Your task to perform on an android device: Open my contact list Image 0: 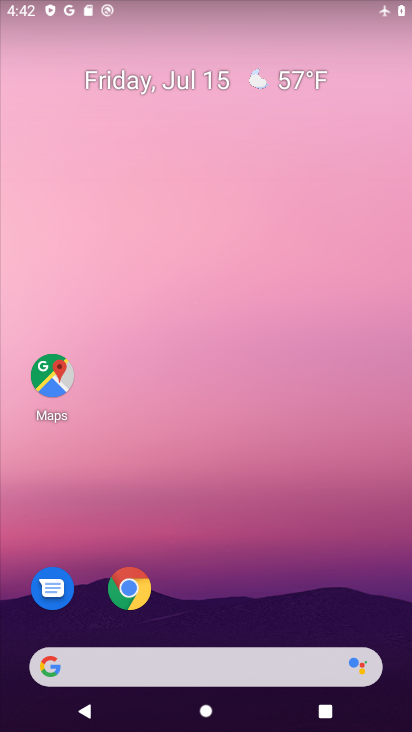
Step 0: drag from (267, 585) to (298, 489)
Your task to perform on an android device: Open my contact list Image 1: 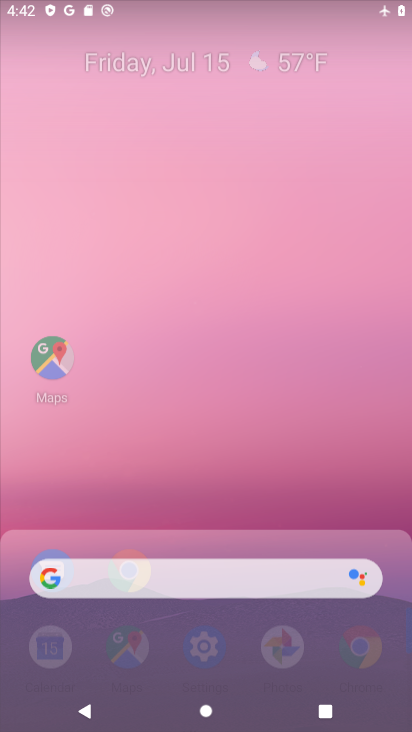
Step 1: click (322, 306)
Your task to perform on an android device: Open my contact list Image 2: 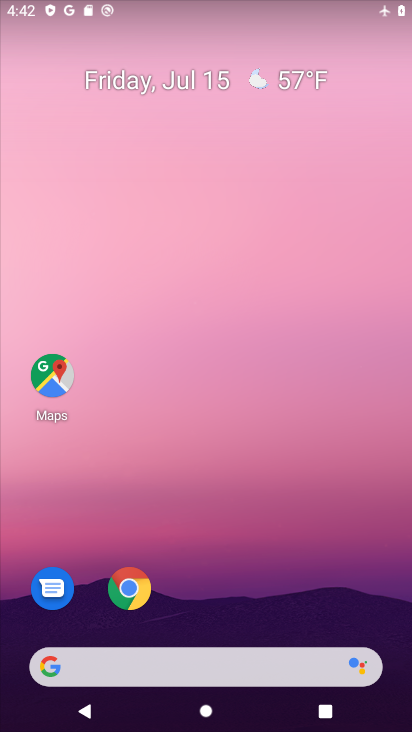
Step 2: drag from (308, 566) to (317, 119)
Your task to perform on an android device: Open my contact list Image 3: 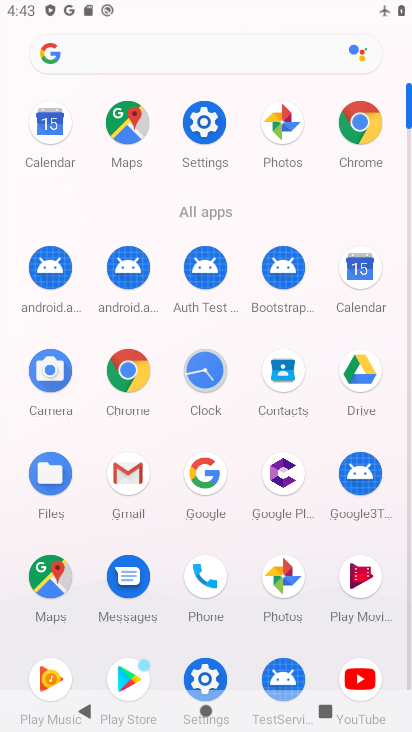
Step 3: click (284, 368)
Your task to perform on an android device: Open my contact list Image 4: 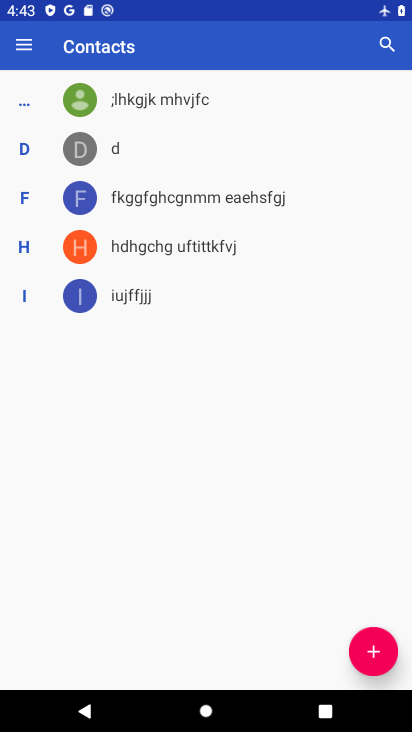
Step 4: task complete